Your task to perform on an android device: open chrome and create a bookmark for the current page Image 0: 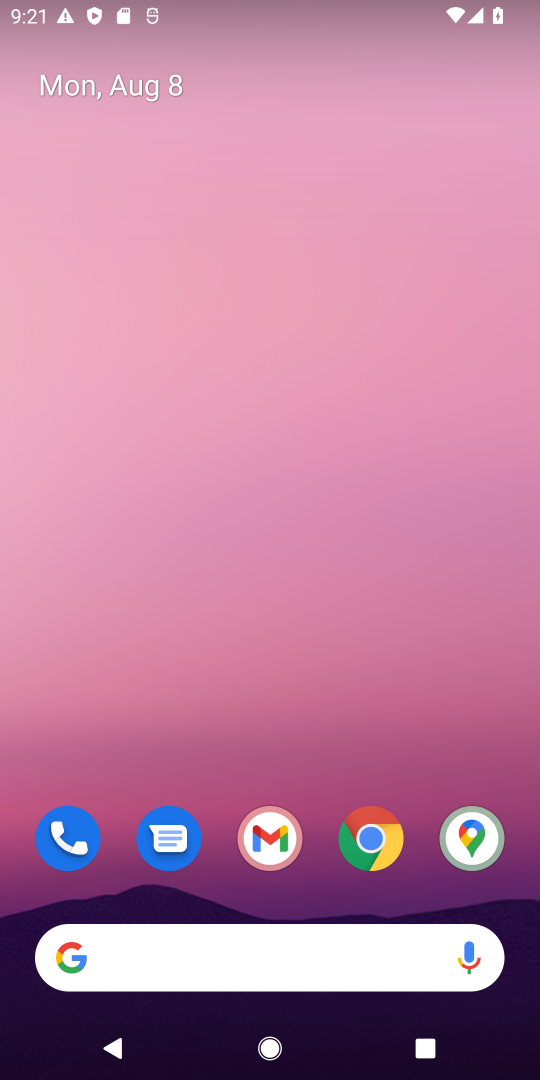
Step 0: drag from (340, 657) to (338, 114)
Your task to perform on an android device: open chrome and create a bookmark for the current page Image 1: 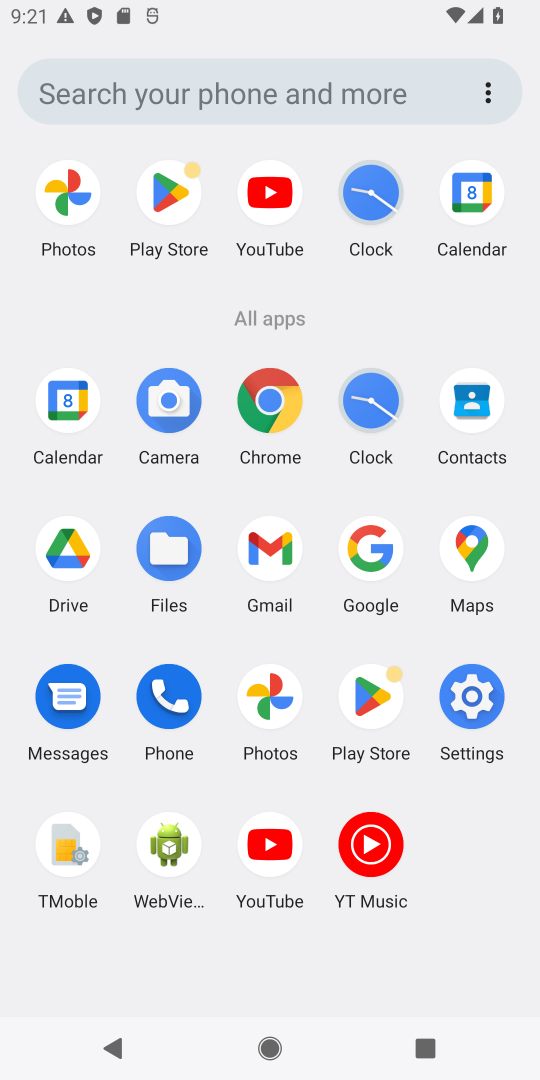
Step 1: click (262, 408)
Your task to perform on an android device: open chrome and create a bookmark for the current page Image 2: 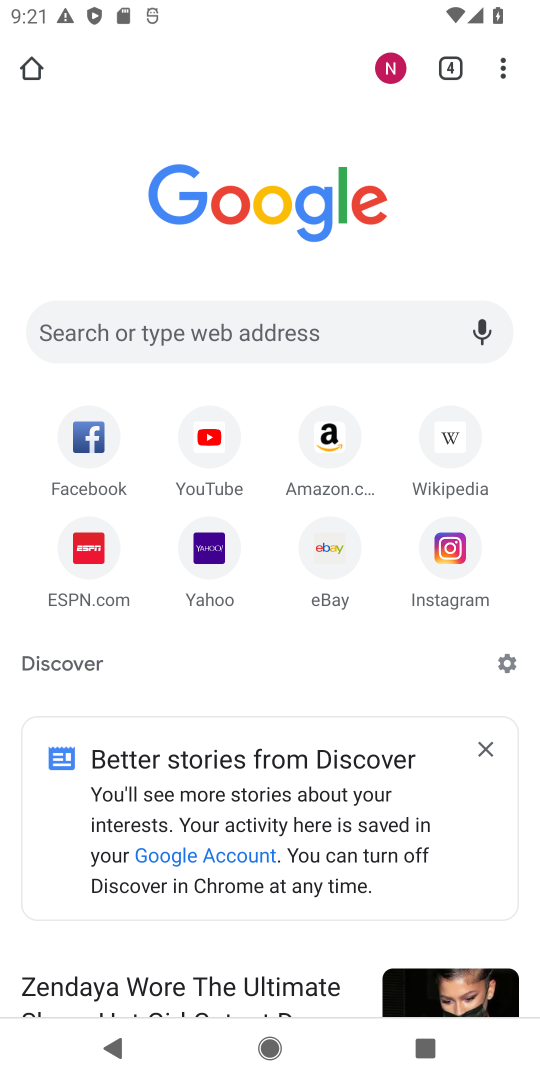
Step 2: drag from (501, 61) to (285, 108)
Your task to perform on an android device: open chrome and create a bookmark for the current page Image 3: 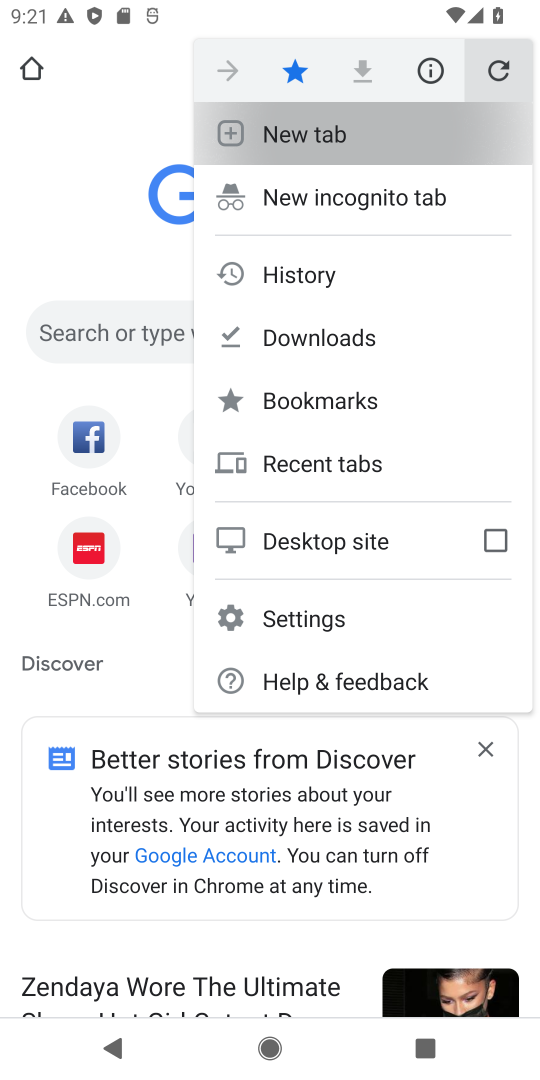
Step 3: click (286, 69)
Your task to perform on an android device: open chrome and create a bookmark for the current page Image 4: 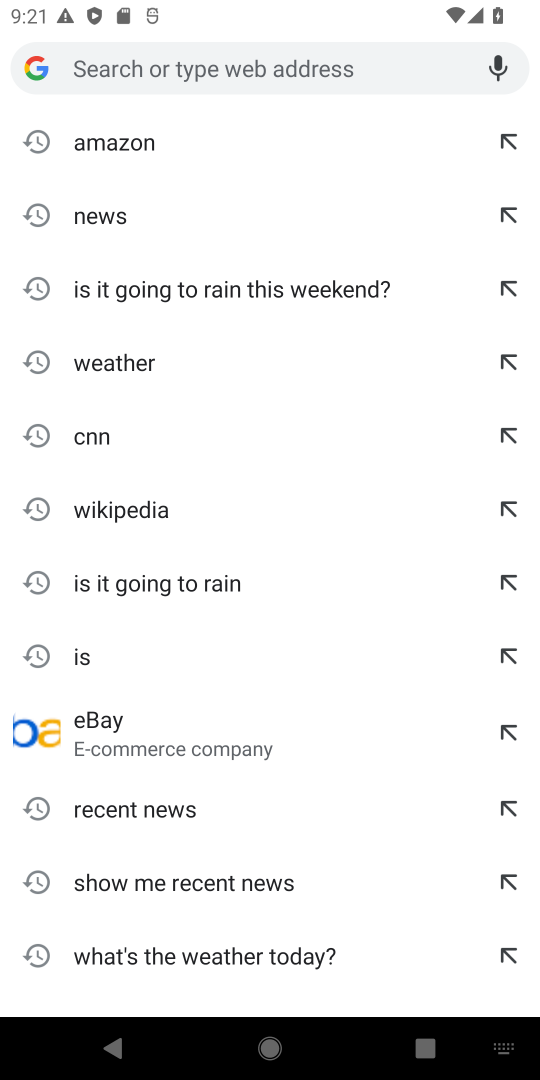
Step 4: task complete